Your task to perform on an android device: What's the latest video from Gameranx? Image 0: 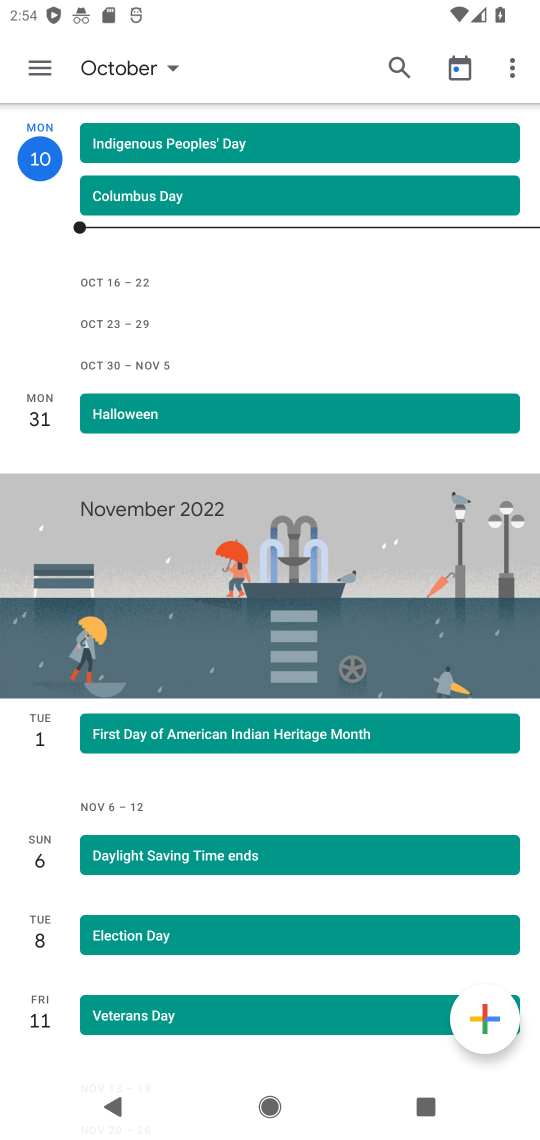
Step 0: press home button
Your task to perform on an android device: What's the latest video from Gameranx? Image 1: 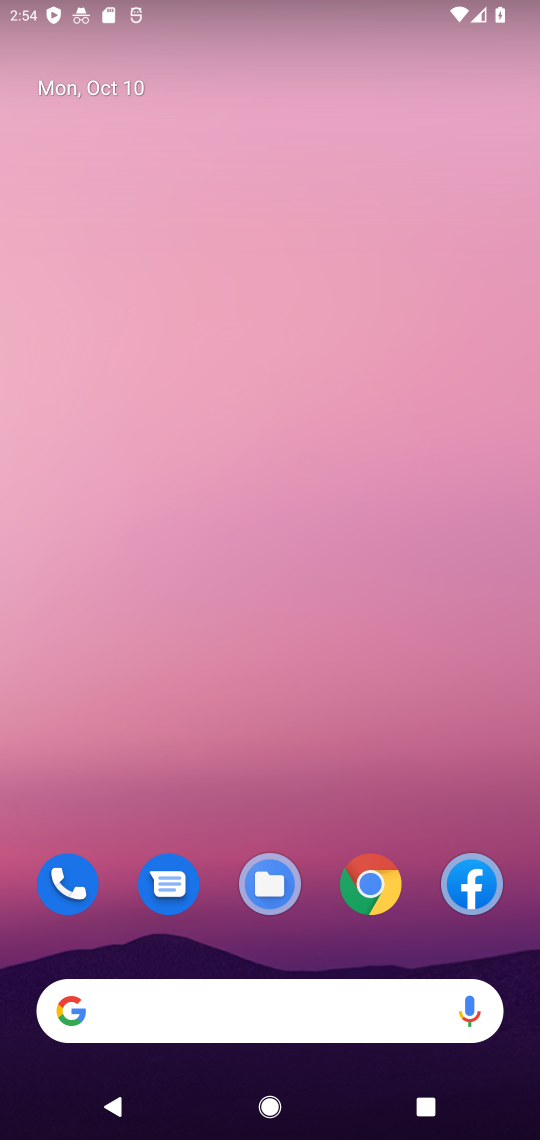
Step 1: click (224, 991)
Your task to perform on an android device: What's the latest video from Gameranx? Image 2: 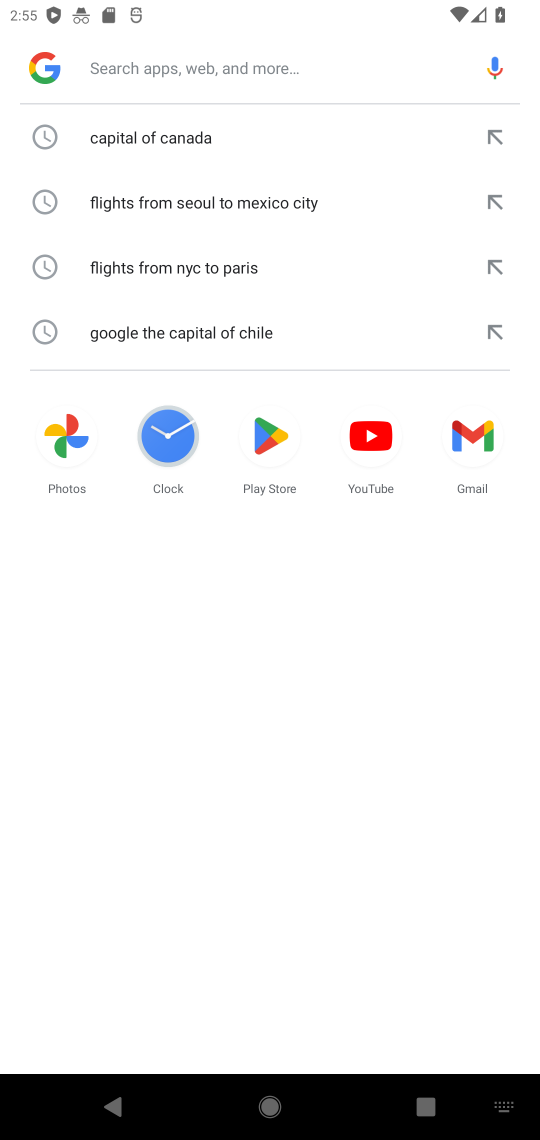
Step 2: type "latest video from Gameranx"
Your task to perform on an android device: What's the latest video from Gameranx? Image 3: 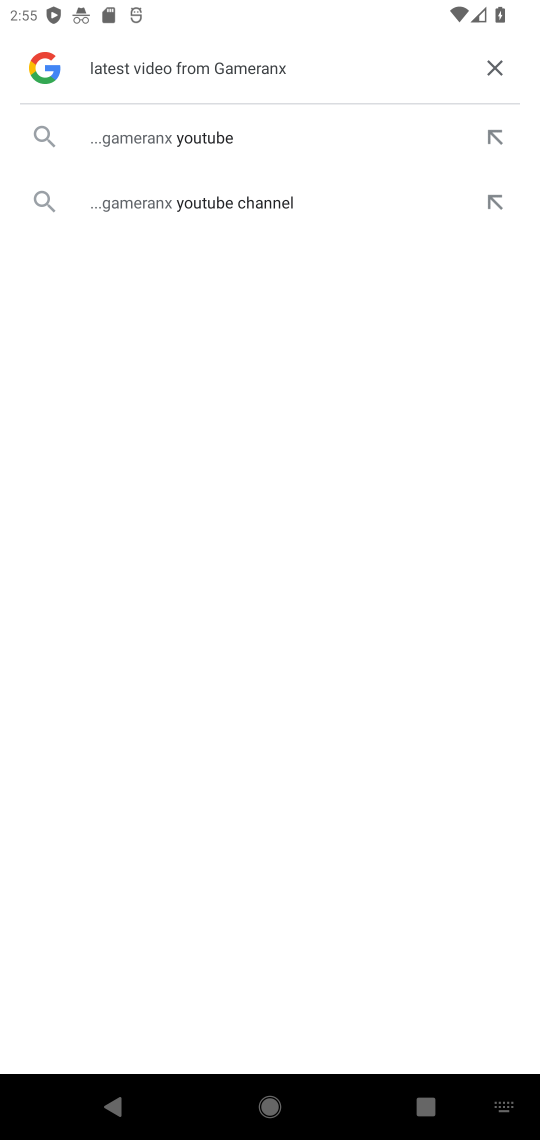
Step 3: click (192, 131)
Your task to perform on an android device: What's the latest video from Gameranx? Image 4: 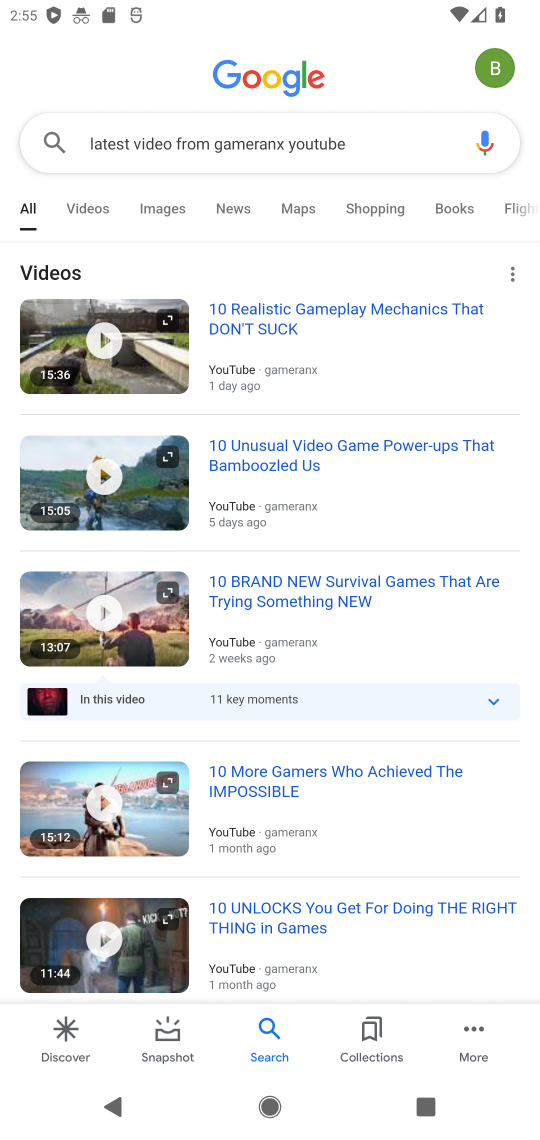
Step 4: task complete